Your task to perform on an android device: turn on priority inbox in the gmail app Image 0: 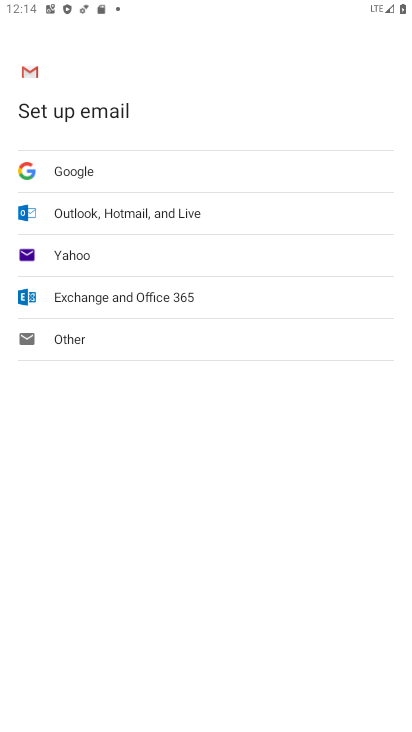
Step 0: press home button
Your task to perform on an android device: turn on priority inbox in the gmail app Image 1: 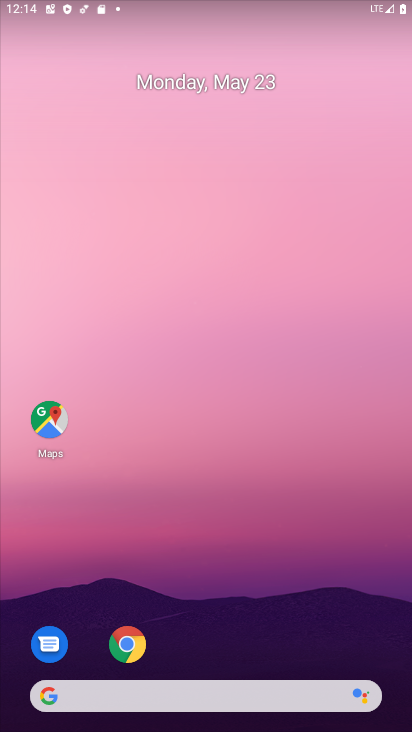
Step 1: drag from (294, 616) to (223, 101)
Your task to perform on an android device: turn on priority inbox in the gmail app Image 2: 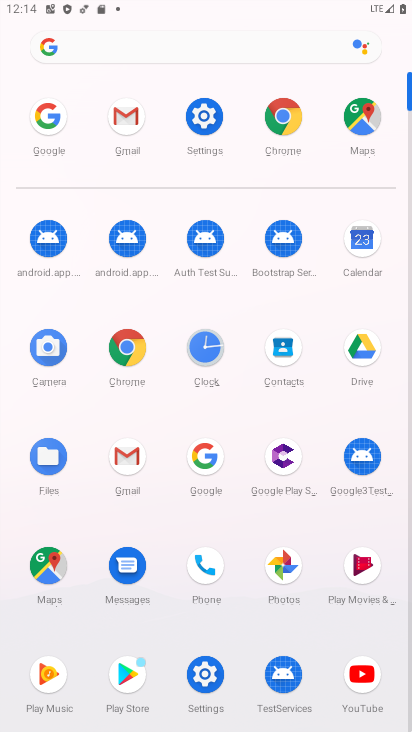
Step 2: click (126, 465)
Your task to perform on an android device: turn on priority inbox in the gmail app Image 3: 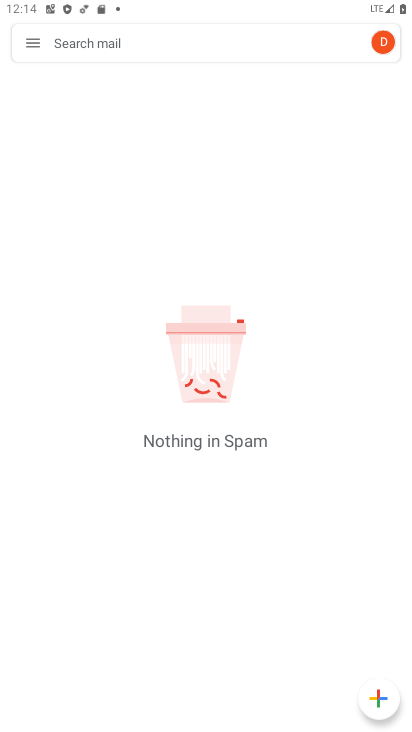
Step 3: click (37, 41)
Your task to perform on an android device: turn on priority inbox in the gmail app Image 4: 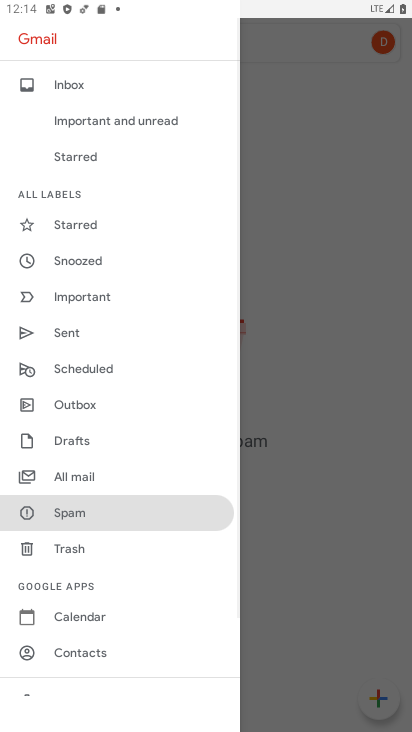
Step 4: drag from (81, 635) to (139, 147)
Your task to perform on an android device: turn on priority inbox in the gmail app Image 5: 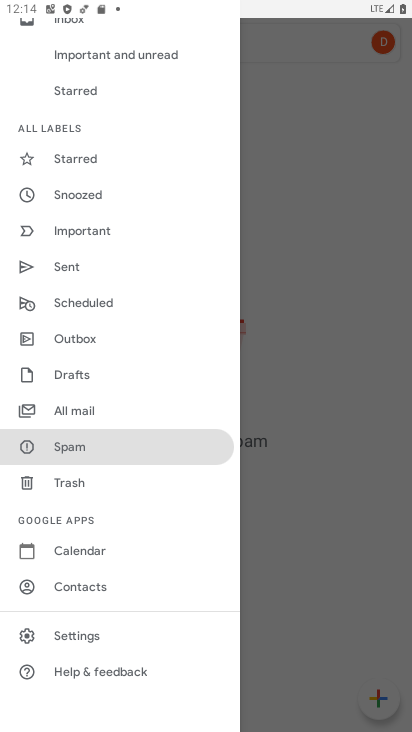
Step 5: click (97, 643)
Your task to perform on an android device: turn on priority inbox in the gmail app Image 6: 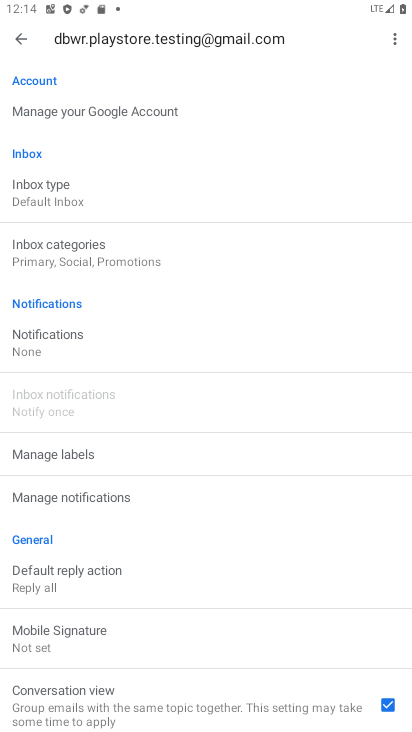
Step 6: click (146, 207)
Your task to perform on an android device: turn on priority inbox in the gmail app Image 7: 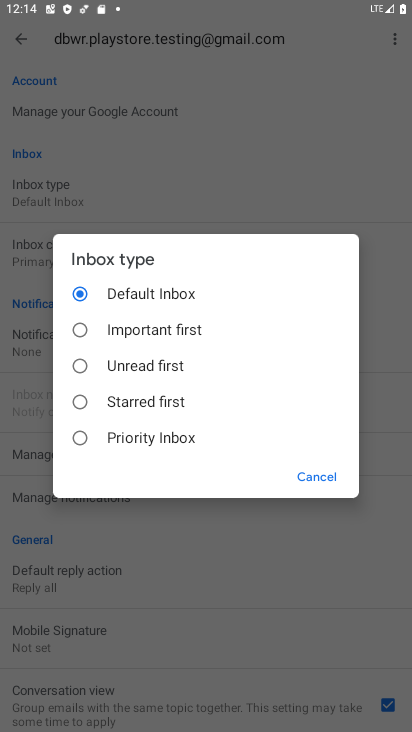
Step 7: click (90, 437)
Your task to perform on an android device: turn on priority inbox in the gmail app Image 8: 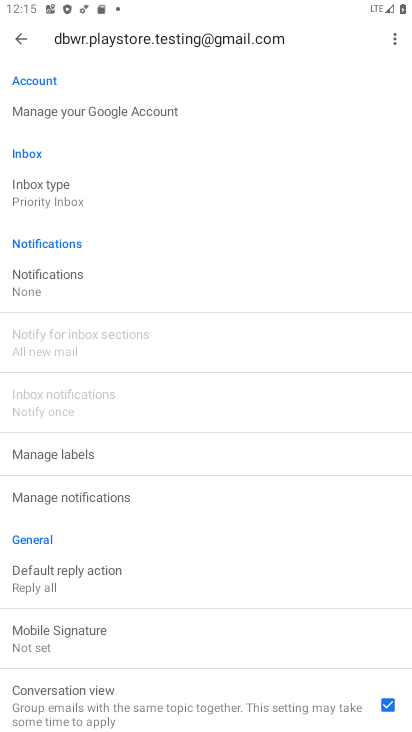
Step 8: task complete